Your task to perform on an android device: turn notification dots on Image 0: 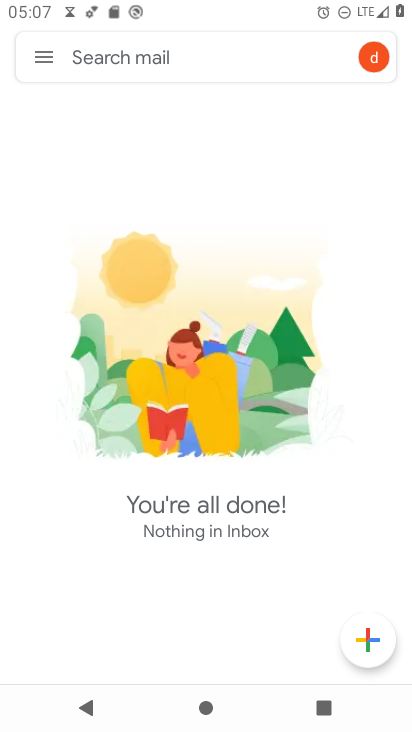
Step 0: press back button
Your task to perform on an android device: turn notification dots on Image 1: 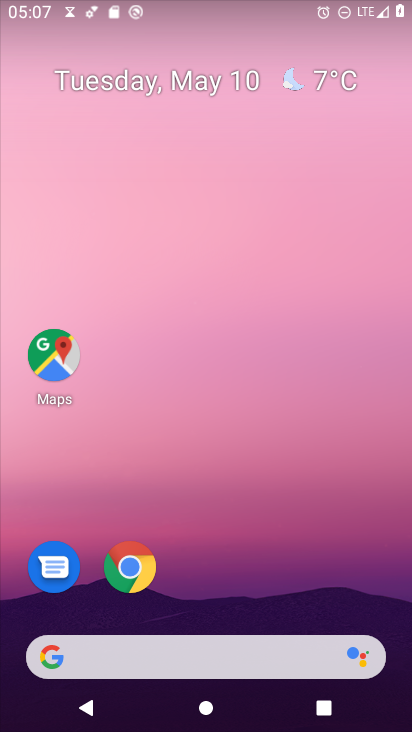
Step 1: drag from (234, 561) to (223, 34)
Your task to perform on an android device: turn notification dots on Image 2: 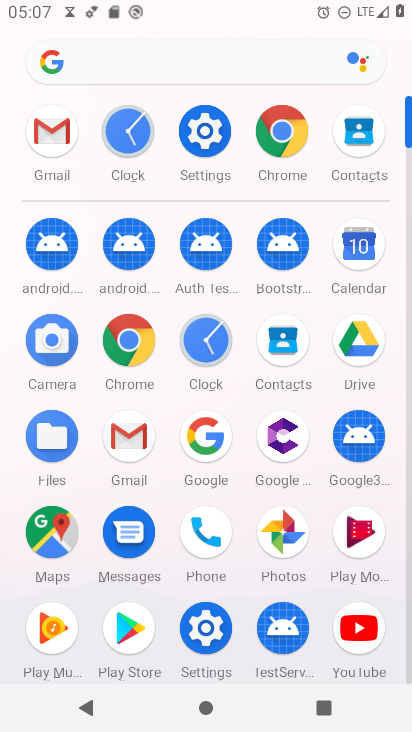
Step 2: click (201, 129)
Your task to perform on an android device: turn notification dots on Image 3: 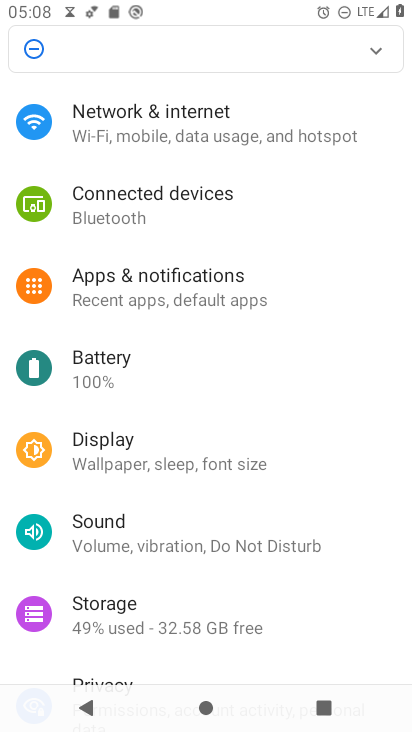
Step 3: click (123, 300)
Your task to perform on an android device: turn notification dots on Image 4: 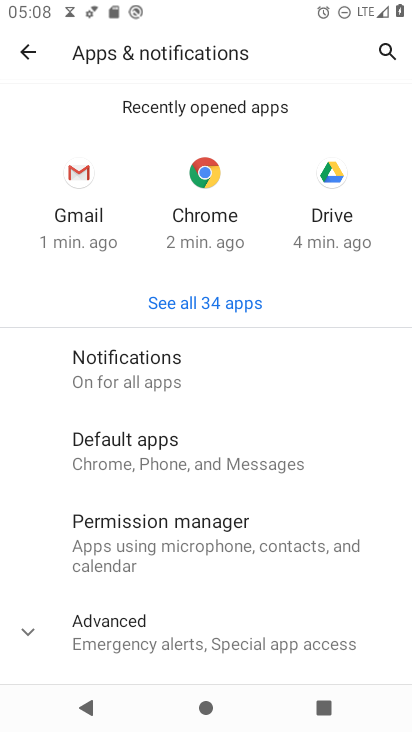
Step 4: click (112, 379)
Your task to perform on an android device: turn notification dots on Image 5: 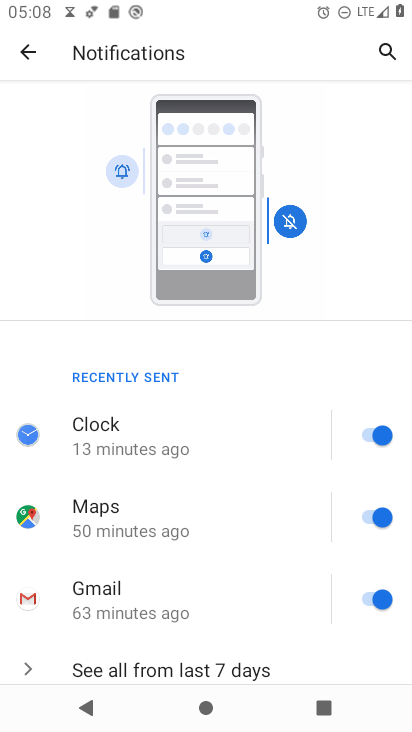
Step 5: drag from (173, 577) to (174, 423)
Your task to perform on an android device: turn notification dots on Image 6: 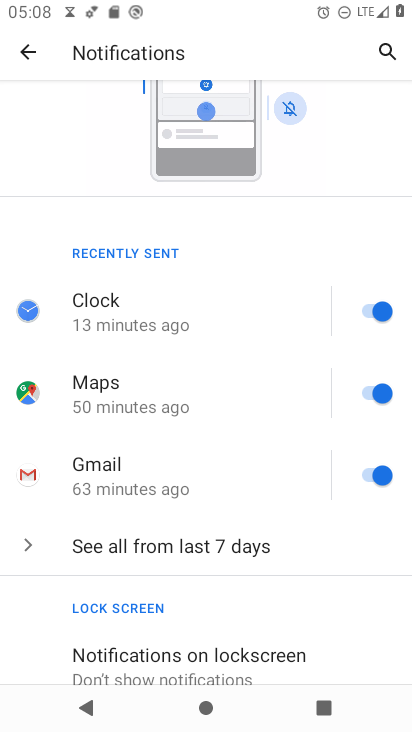
Step 6: drag from (170, 518) to (168, 397)
Your task to perform on an android device: turn notification dots on Image 7: 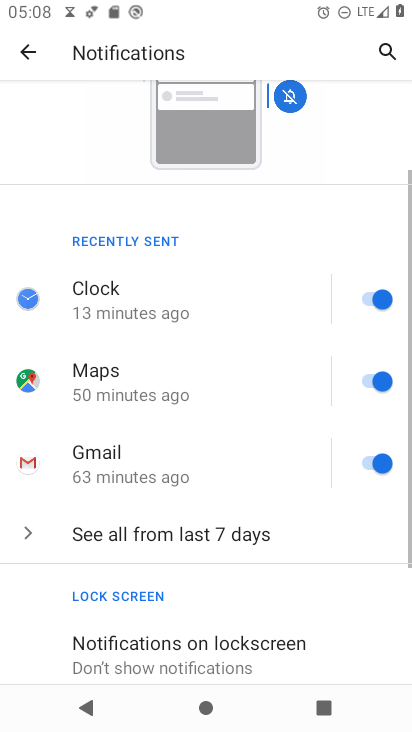
Step 7: drag from (193, 612) to (192, 457)
Your task to perform on an android device: turn notification dots on Image 8: 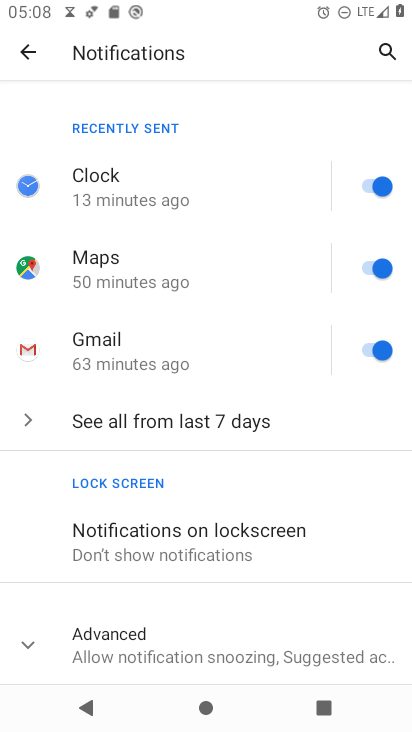
Step 8: click (159, 645)
Your task to perform on an android device: turn notification dots on Image 9: 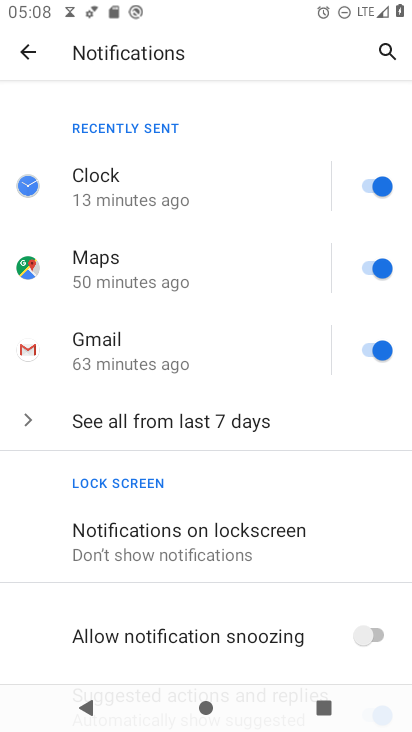
Step 9: task complete